Your task to perform on an android device: open a new tab in the chrome app Image 0: 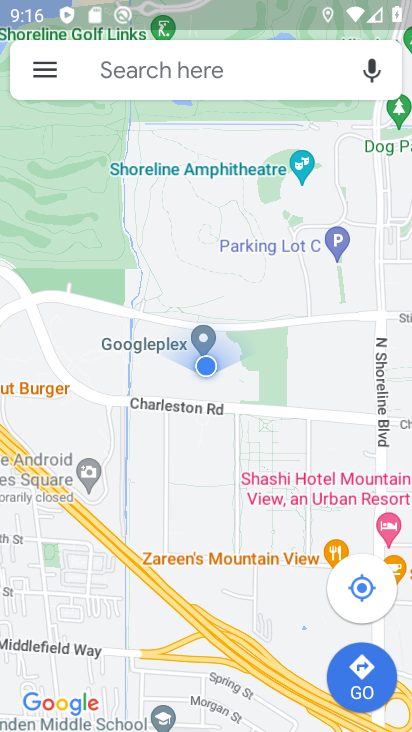
Step 0: press home button
Your task to perform on an android device: open a new tab in the chrome app Image 1: 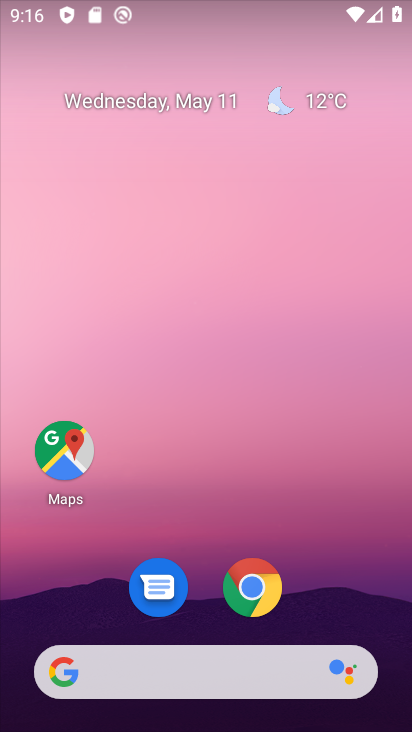
Step 1: click (262, 587)
Your task to perform on an android device: open a new tab in the chrome app Image 2: 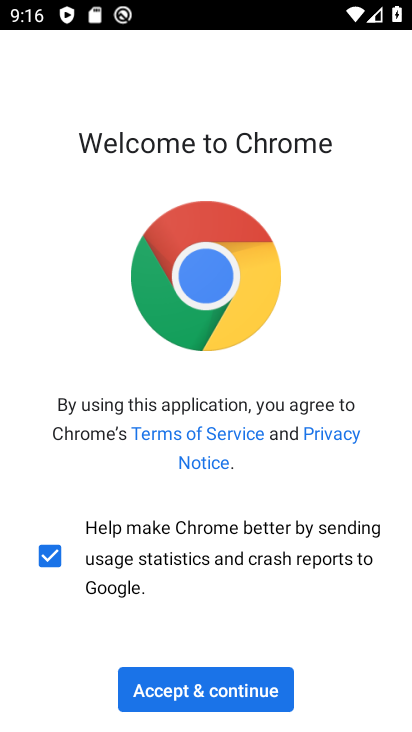
Step 2: click (215, 697)
Your task to perform on an android device: open a new tab in the chrome app Image 3: 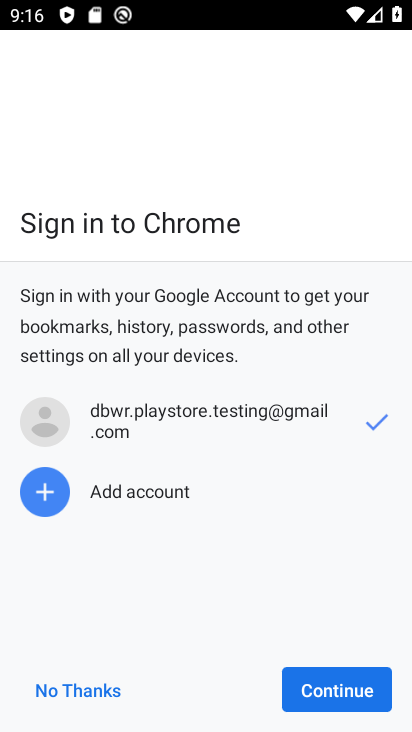
Step 3: click (108, 696)
Your task to perform on an android device: open a new tab in the chrome app Image 4: 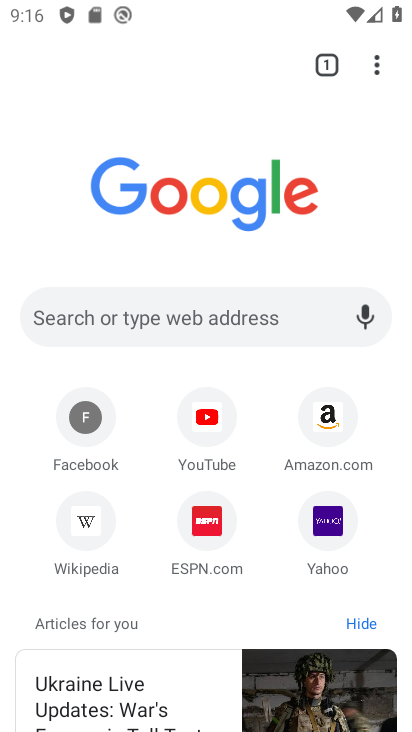
Step 4: task complete